Your task to perform on an android device: toggle show notifications on the lock screen Image 0: 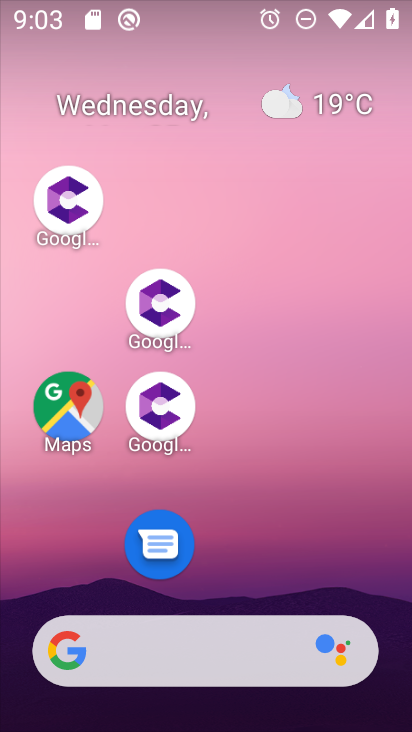
Step 0: drag from (300, 541) to (246, 138)
Your task to perform on an android device: toggle show notifications on the lock screen Image 1: 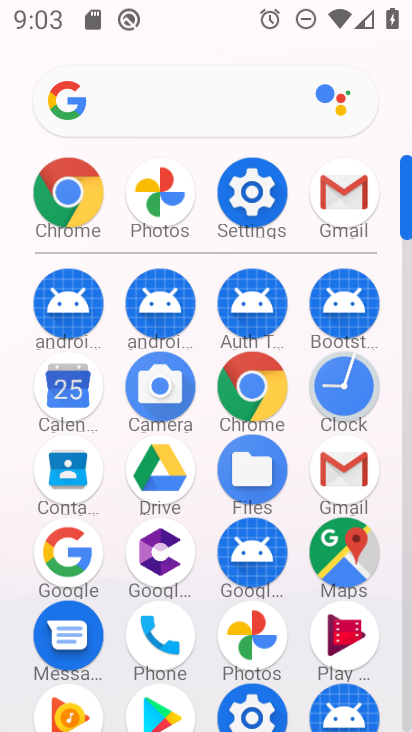
Step 1: click (258, 184)
Your task to perform on an android device: toggle show notifications on the lock screen Image 2: 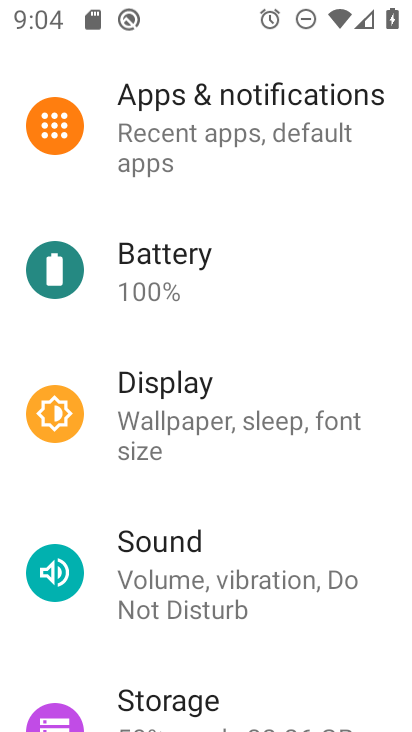
Step 2: click (188, 98)
Your task to perform on an android device: toggle show notifications on the lock screen Image 3: 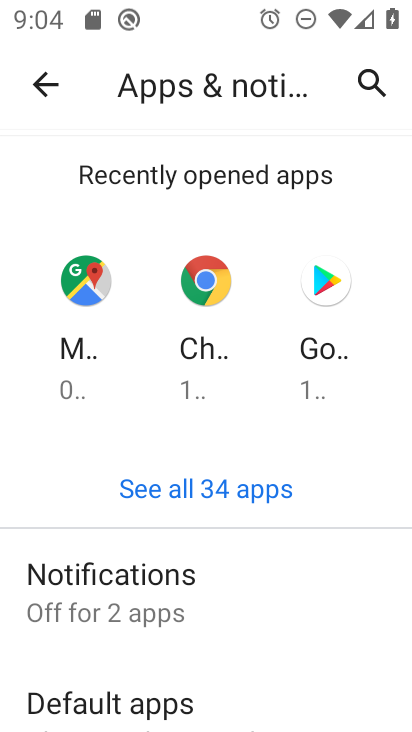
Step 3: click (112, 571)
Your task to perform on an android device: toggle show notifications on the lock screen Image 4: 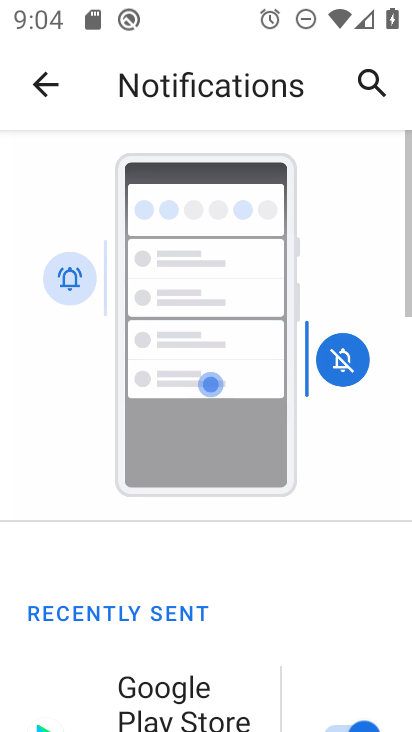
Step 4: drag from (291, 581) to (289, 107)
Your task to perform on an android device: toggle show notifications on the lock screen Image 5: 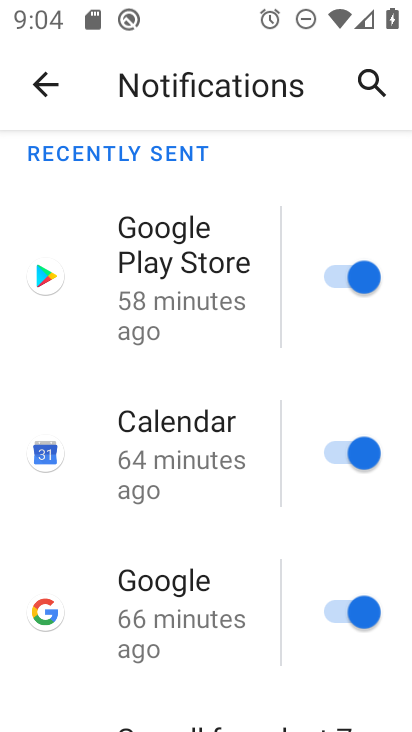
Step 5: drag from (235, 580) to (240, 181)
Your task to perform on an android device: toggle show notifications on the lock screen Image 6: 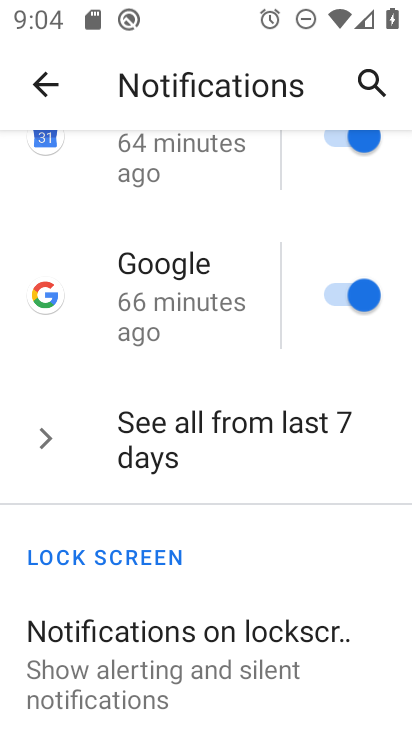
Step 6: click (206, 622)
Your task to perform on an android device: toggle show notifications on the lock screen Image 7: 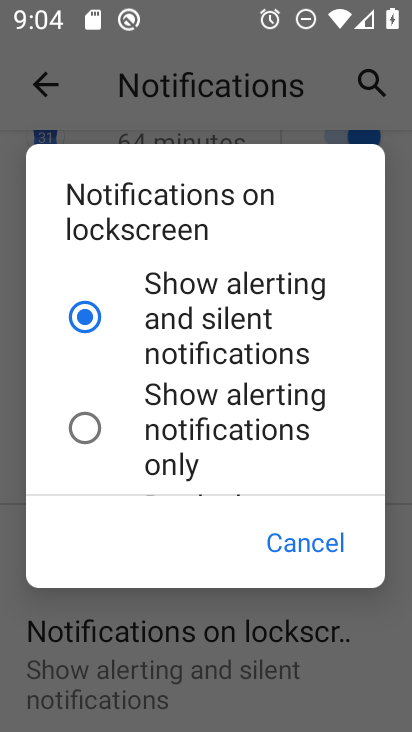
Step 7: drag from (117, 373) to (91, 38)
Your task to perform on an android device: toggle show notifications on the lock screen Image 8: 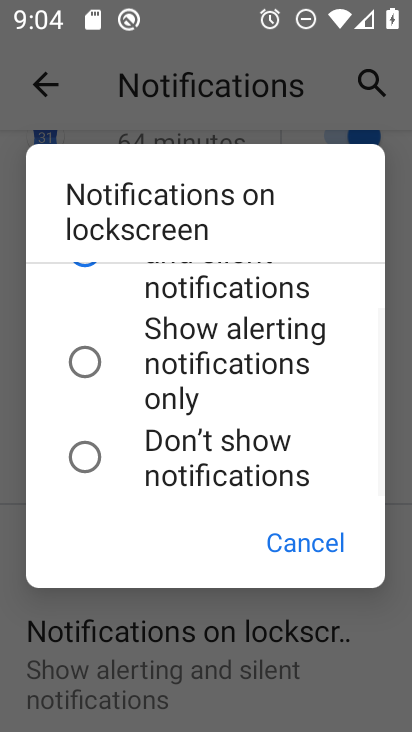
Step 8: click (83, 454)
Your task to perform on an android device: toggle show notifications on the lock screen Image 9: 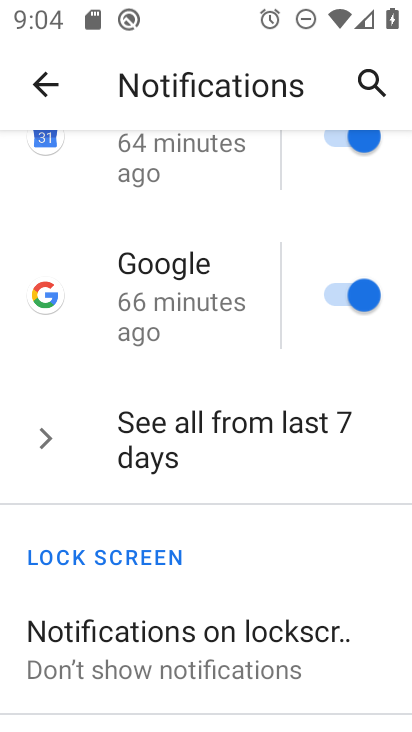
Step 9: task complete